Your task to perform on an android device: toggle pop-ups in chrome Image 0: 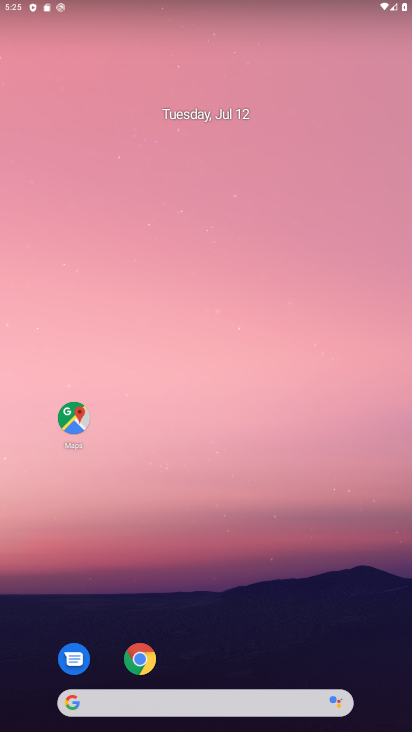
Step 0: drag from (239, 602) to (266, 143)
Your task to perform on an android device: toggle pop-ups in chrome Image 1: 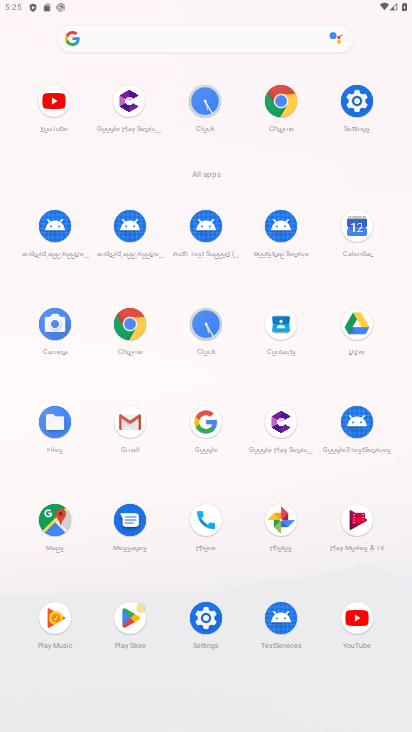
Step 1: click (139, 327)
Your task to perform on an android device: toggle pop-ups in chrome Image 2: 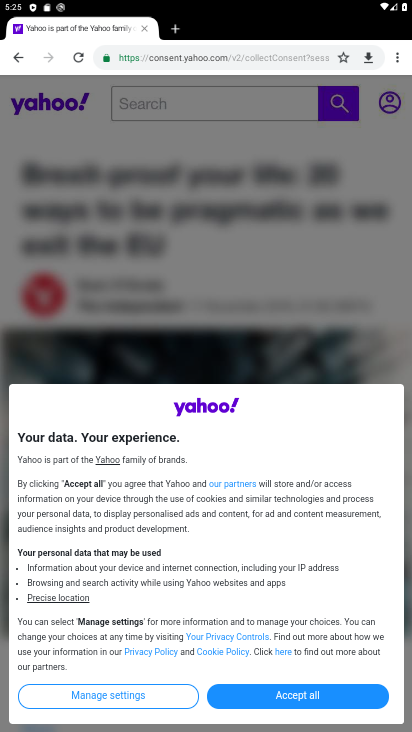
Step 2: click (398, 49)
Your task to perform on an android device: toggle pop-ups in chrome Image 3: 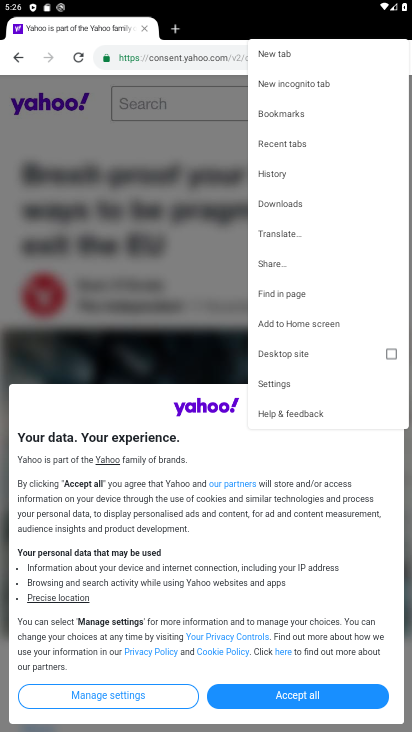
Step 3: click (282, 381)
Your task to perform on an android device: toggle pop-ups in chrome Image 4: 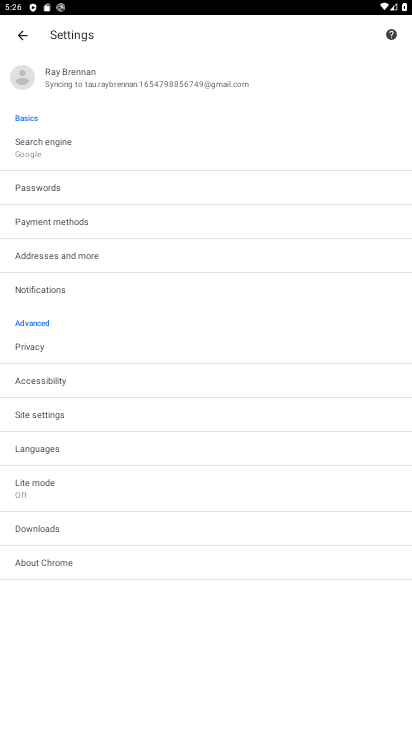
Step 4: click (54, 413)
Your task to perform on an android device: toggle pop-ups in chrome Image 5: 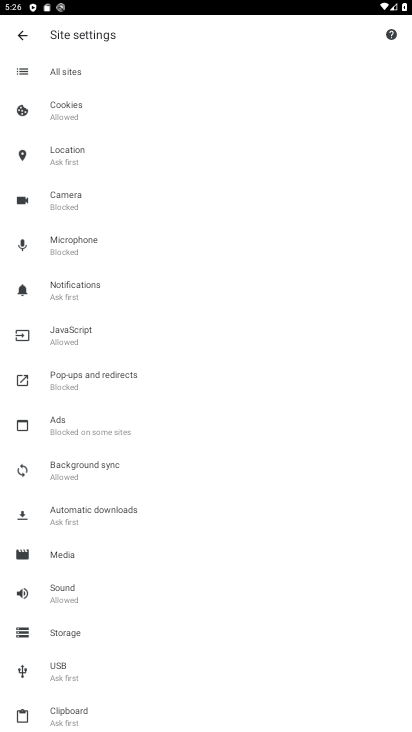
Step 5: click (105, 384)
Your task to perform on an android device: toggle pop-ups in chrome Image 6: 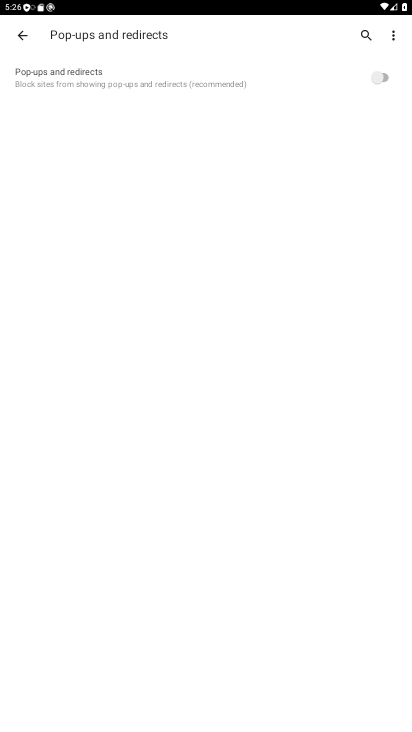
Step 6: click (397, 80)
Your task to perform on an android device: toggle pop-ups in chrome Image 7: 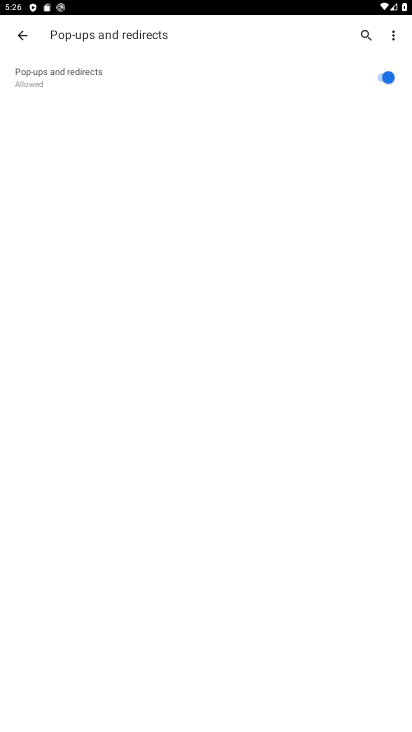
Step 7: task complete